Your task to perform on an android device: Go to accessibility settings Image 0: 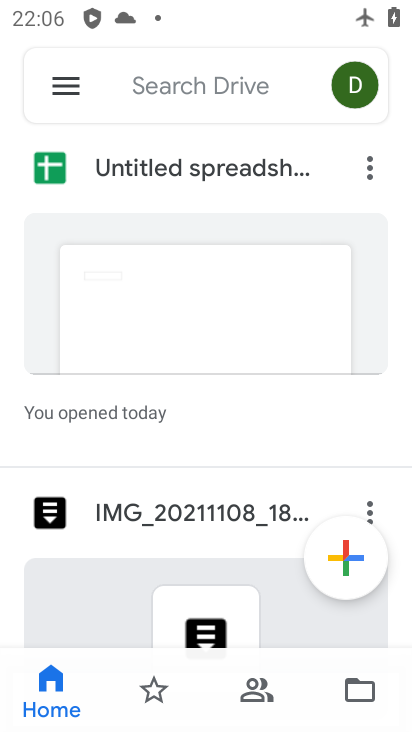
Step 0: press home button
Your task to perform on an android device: Go to accessibility settings Image 1: 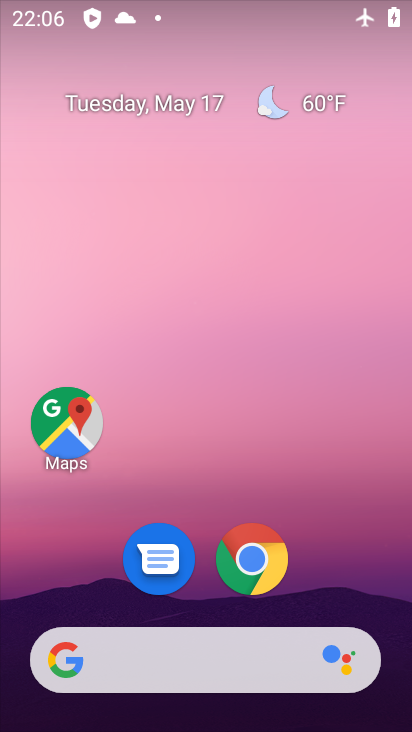
Step 1: drag from (369, 512) to (392, 64)
Your task to perform on an android device: Go to accessibility settings Image 2: 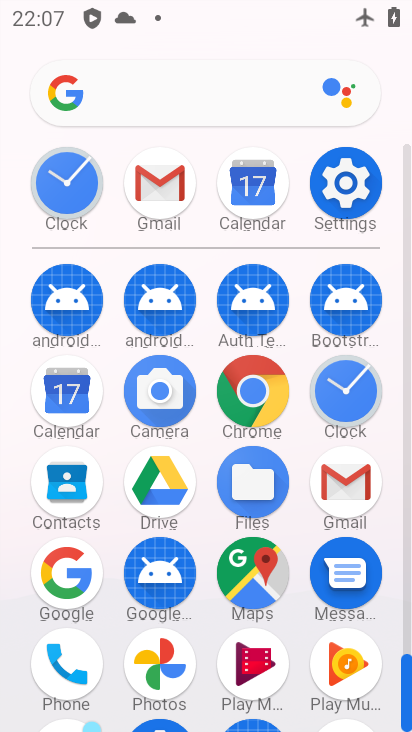
Step 2: click (368, 169)
Your task to perform on an android device: Go to accessibility settings Image 3: 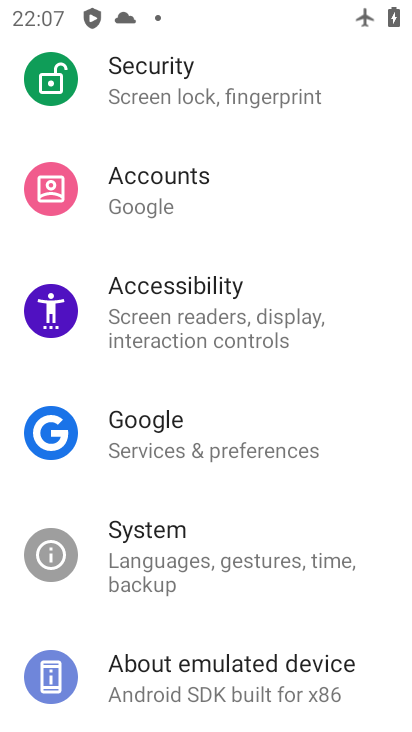
Step 3: drag from (231, 611) to (292, 158)
Your task to perform on an android device: Go to accessibility settings Image 4: 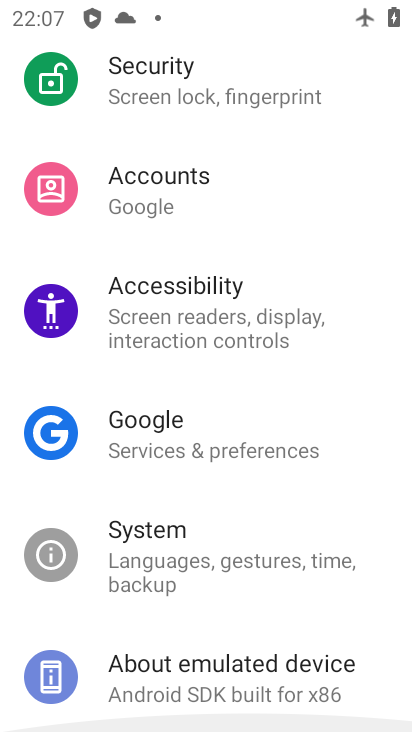
Step 4: drag from (292, 141) to (285, 675)
Your task to perform on an android device: Go to accessibility settings Image 5: 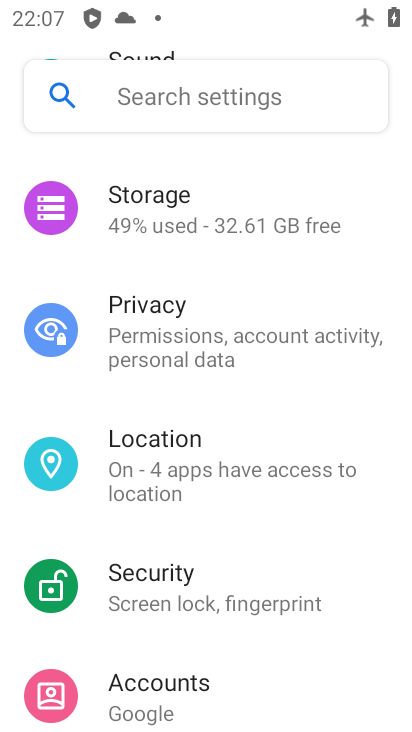
Step 5: drag from (295, 264) to (235, 680)
Your task to perform on an android device: Go to accessibility settings Image 6: 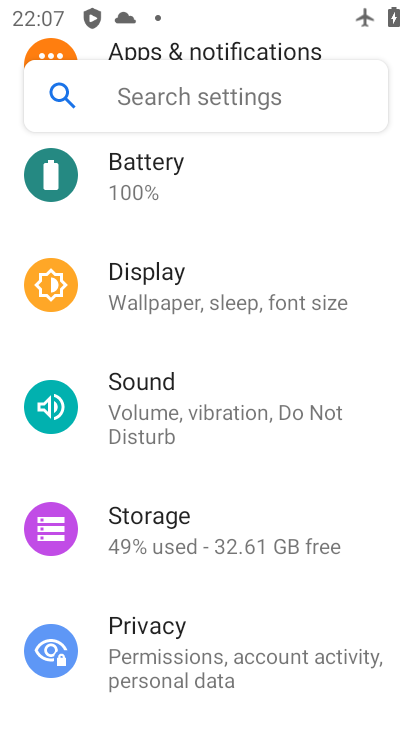
Step 6: drag from (242, 221) to (321, 13)
Your task to perform on an android device: Go to accessibility settings Image 7: 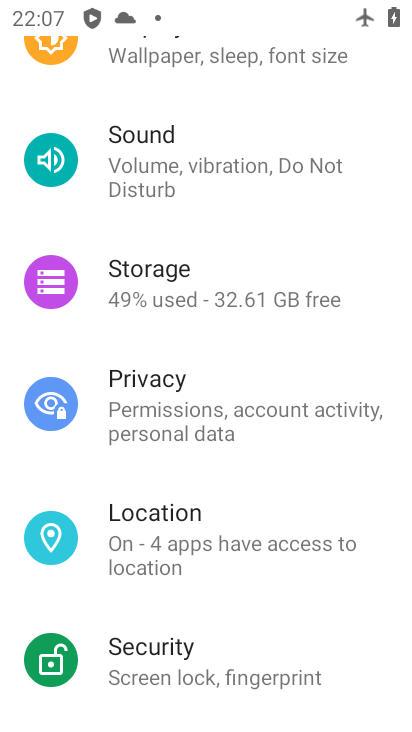
Step 7: drag from (270, 536) to (400, 101)
Your task to perform on an android device: Go to accessibility settings Image 8: 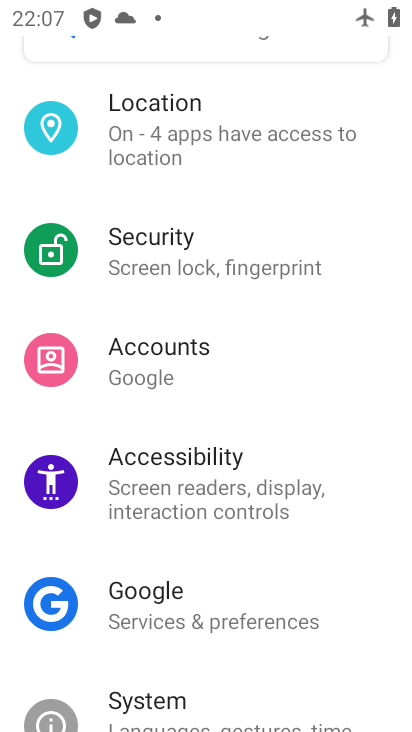
Step 8: click (209, 432)
Your task to perform on an android device: Go to accessibility settings Image 9: 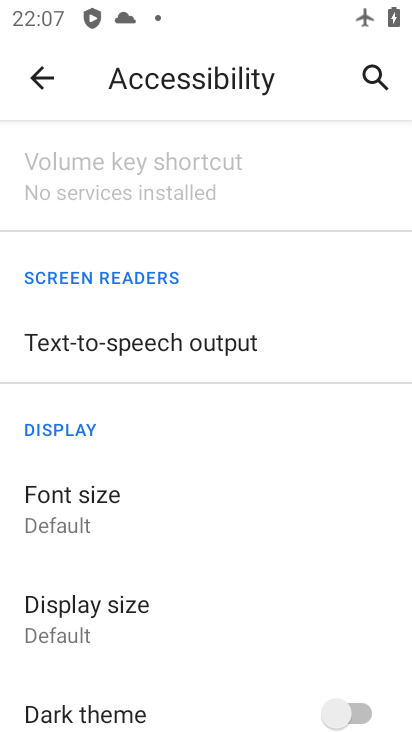
Step 9: task complete